Your task to perform on an android device: turn on showing notifications on the lock screen Image 0: 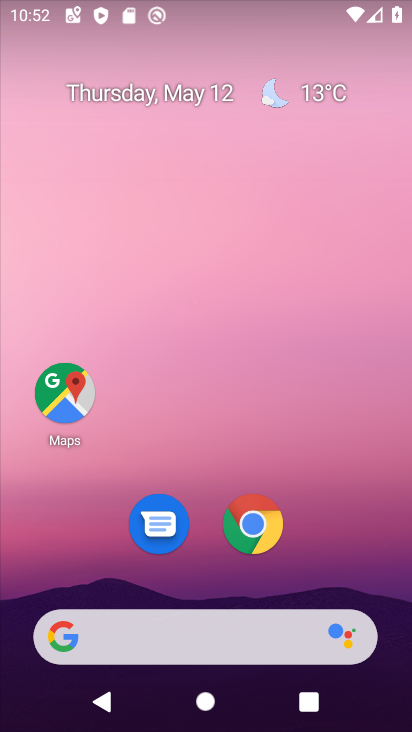
Step 0: drag from (227, 521) to (281, 131)
Your task to perform on an android device: turn on showing notifications on the lock screen Image 1: 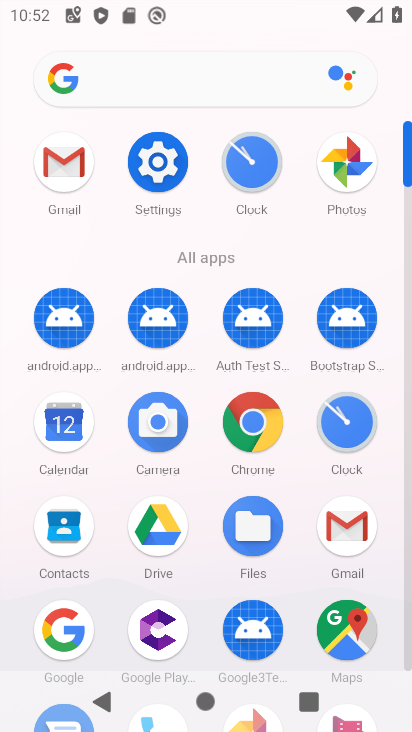
Step 1: click (160, 156)
Your task to perform on an android device: turn on showing notifications on the lock screen Image 2: 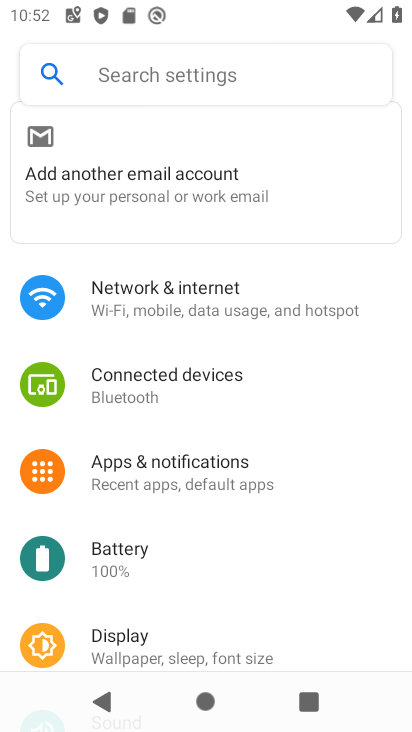
Step 2: click (199, 478)
Your task to perform on an android device: turn on showing notifications on the lock screen Image 3: 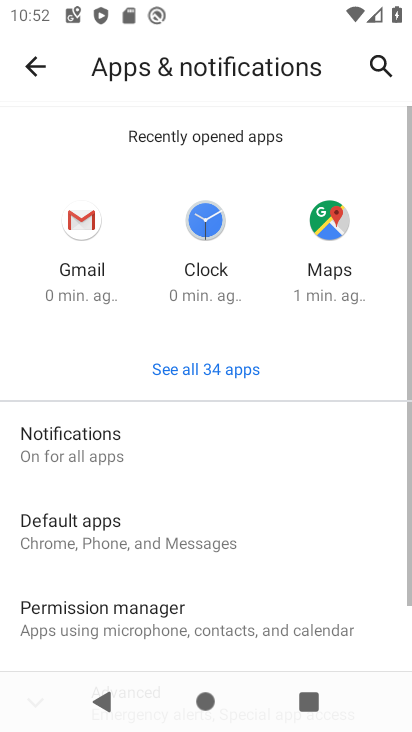
Step 3: click (205, 436)
Your task to perform on an android device: turn on showing notifications on the lock screen Image 4: 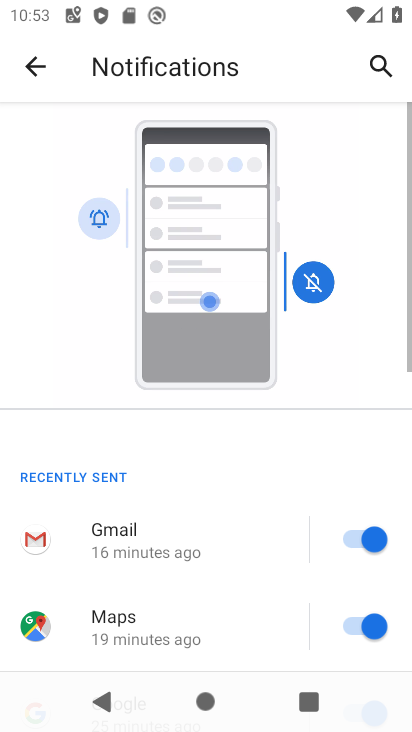
Step 4: task complete